Your task to perform on an android device: Go to notification settings Image 0: 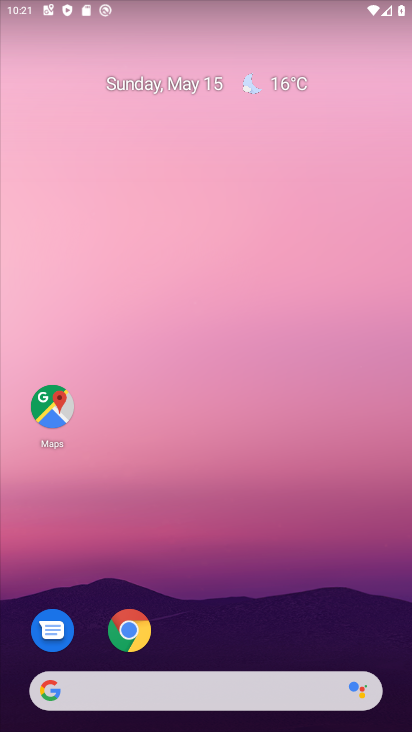
Step 0: drag from (211, 642) to (192, 82)
Your task to perform on an android device: Go to notification settings Image 1: 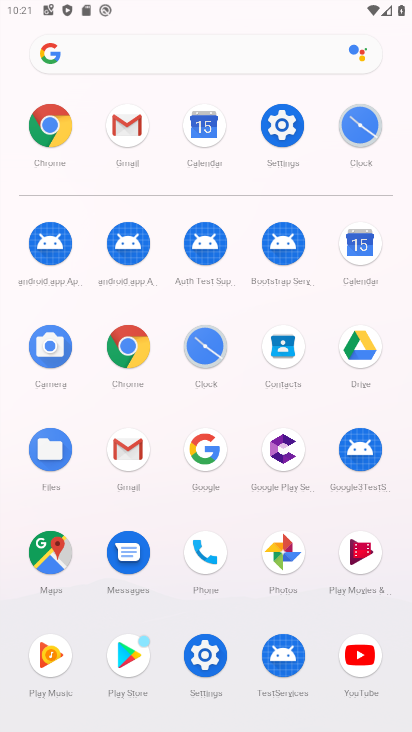
Step 1: click (261, 134)
Your task to perform on an android device: Go to notification settings Image 2: 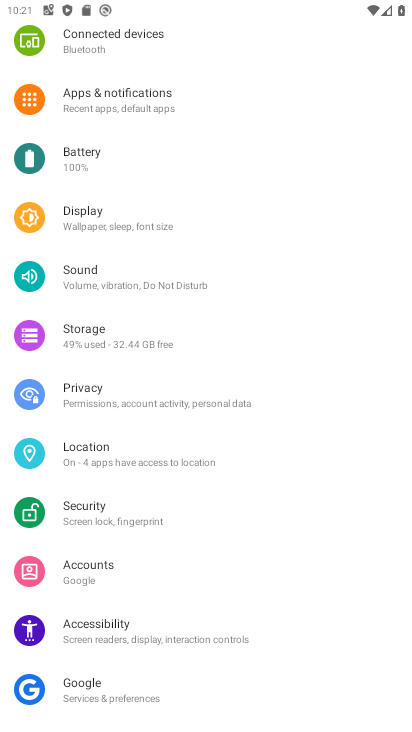
Step 2: click (131, 97)
Your task to perform on an android device: Go to notification settings Image 3: 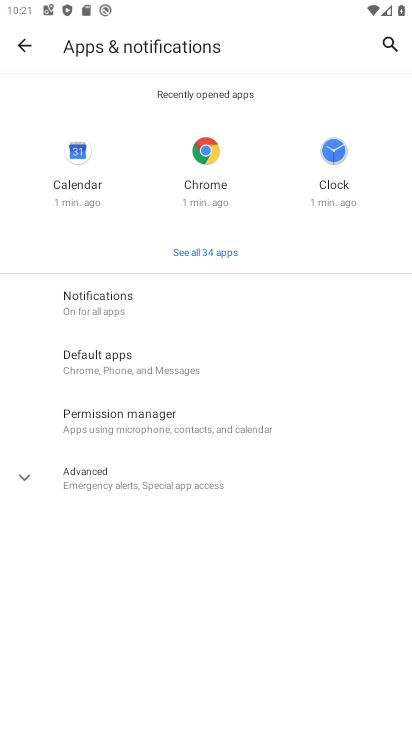
Step 3: click (155, 304)
Your task to perform on an android device: Go to notification settings Image 4: 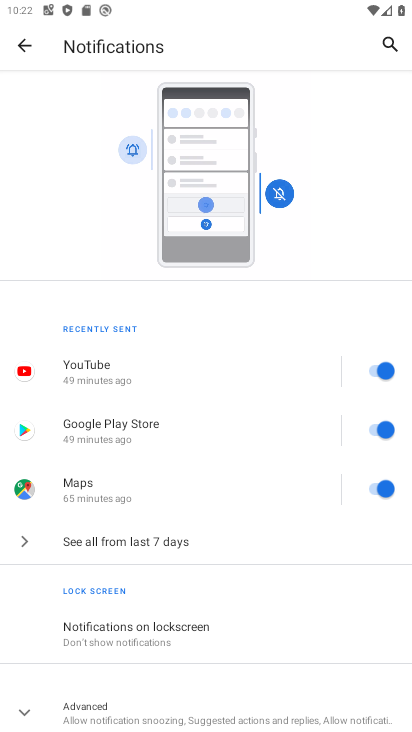
Step 4: task complete